Your task to perform on an android device: Set the phone to "Do not disturb". Image 0: 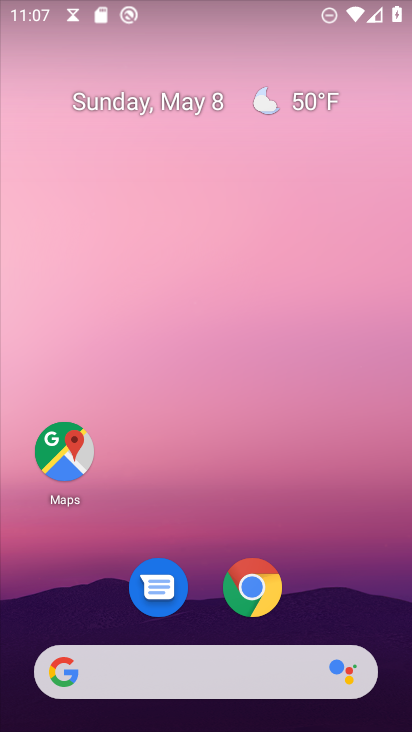
Step 0: drag from (317, 475) to (188, 93)
Your task to perform on an android device: Set the phone to "Do not disturb". Image 1: 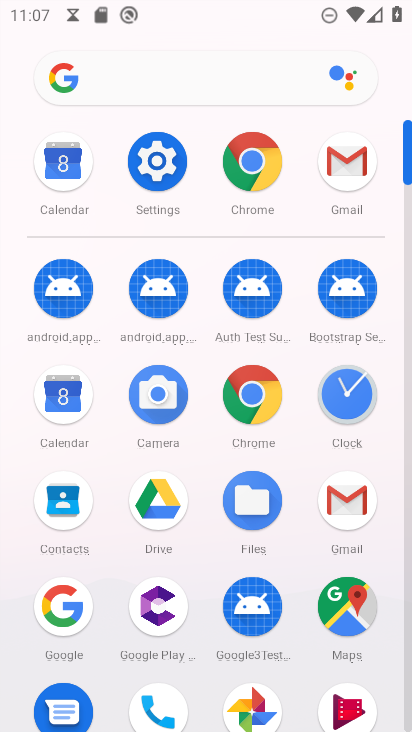
Step 1: click (172, 166)
Your task to perform on an android device: Set the phone to "Do not disturb". Image 2: 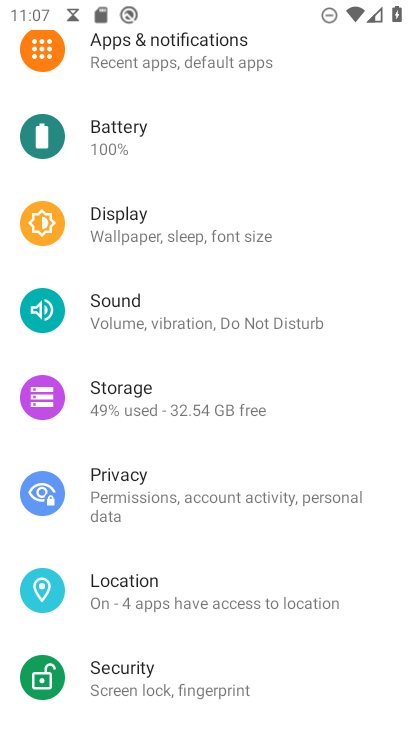
Step 2: click (179, 319)
Your task to perform on an android device: Set the phone to "Do not disturb". Image 3: 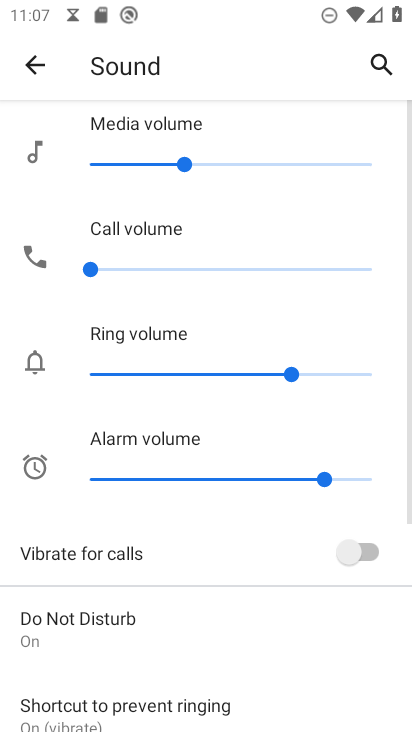
Step 3: click (111, 635)
Your task to perform on an android device: Set the phone to "Do not disturb". Image 4: 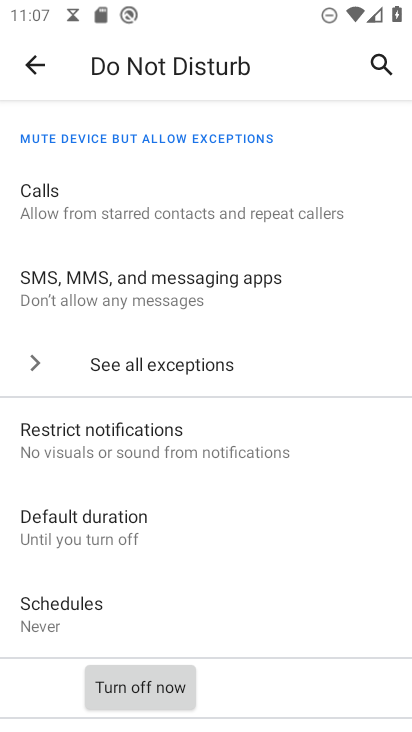
Step 4: task complete